Your task to perform on an android device: open wifi settings Image 0: 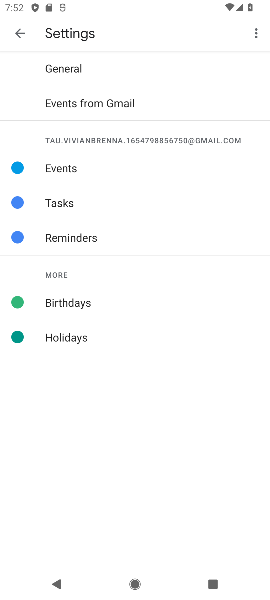
Step 0: press home button
Your task to perform on an android device: open wifi settings Image 1: 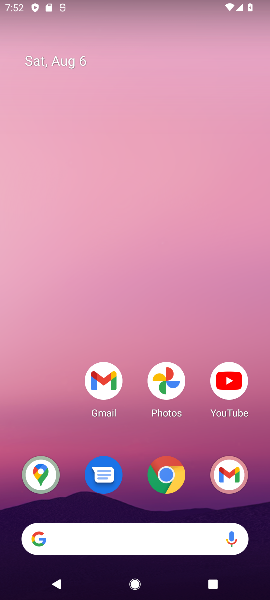
Step 1: drag from (133, 436) to (135, 110)
Your task to perform on an android device: open wifi settings Image 2: 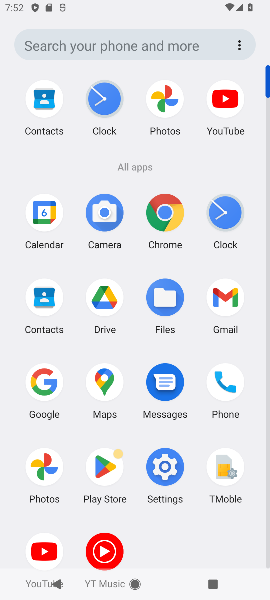
Step 2: click (171, 472)
Your task to perform on an android device: open wifi settings Image 3: 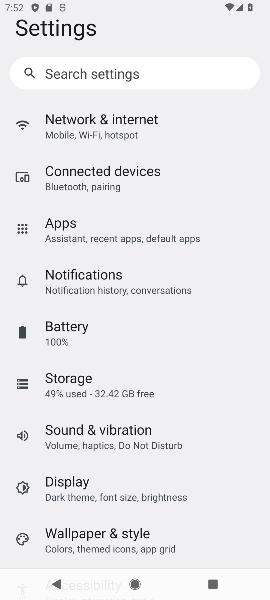
Step 3: click (140, 131)
Your task to perform on an android device: open wifi settings Image 4: 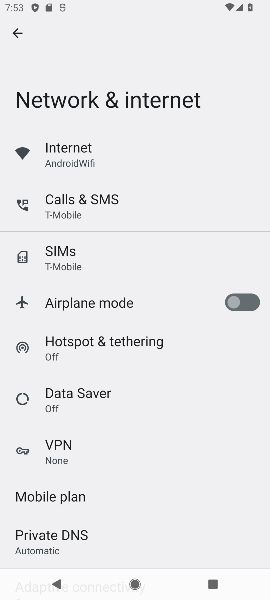
Step 4: click (109, 152)
Your task to perform on an android device: open wifi settings Image 5: 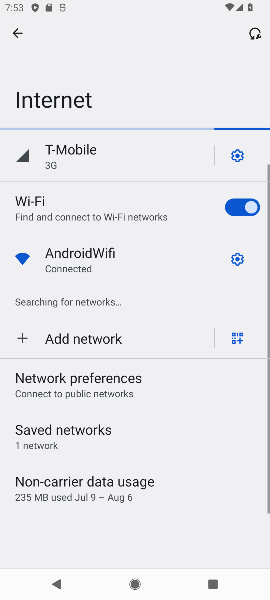
Step 5: task complete